Your task to perform on an android device: uninstall "VLC for Android" Image 0: 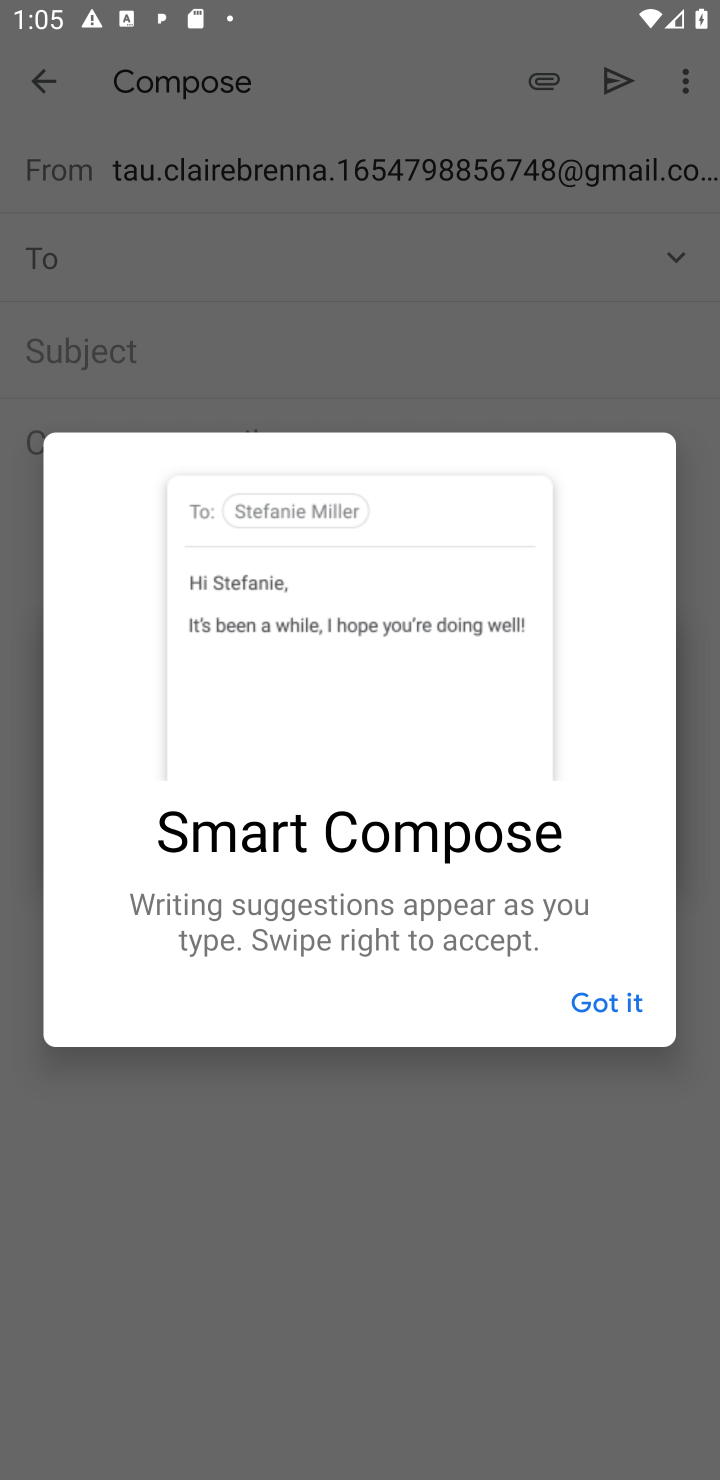
Step 0: press home button
Your task to perform on an android device: uninstall "VLC for Android" Image 1: 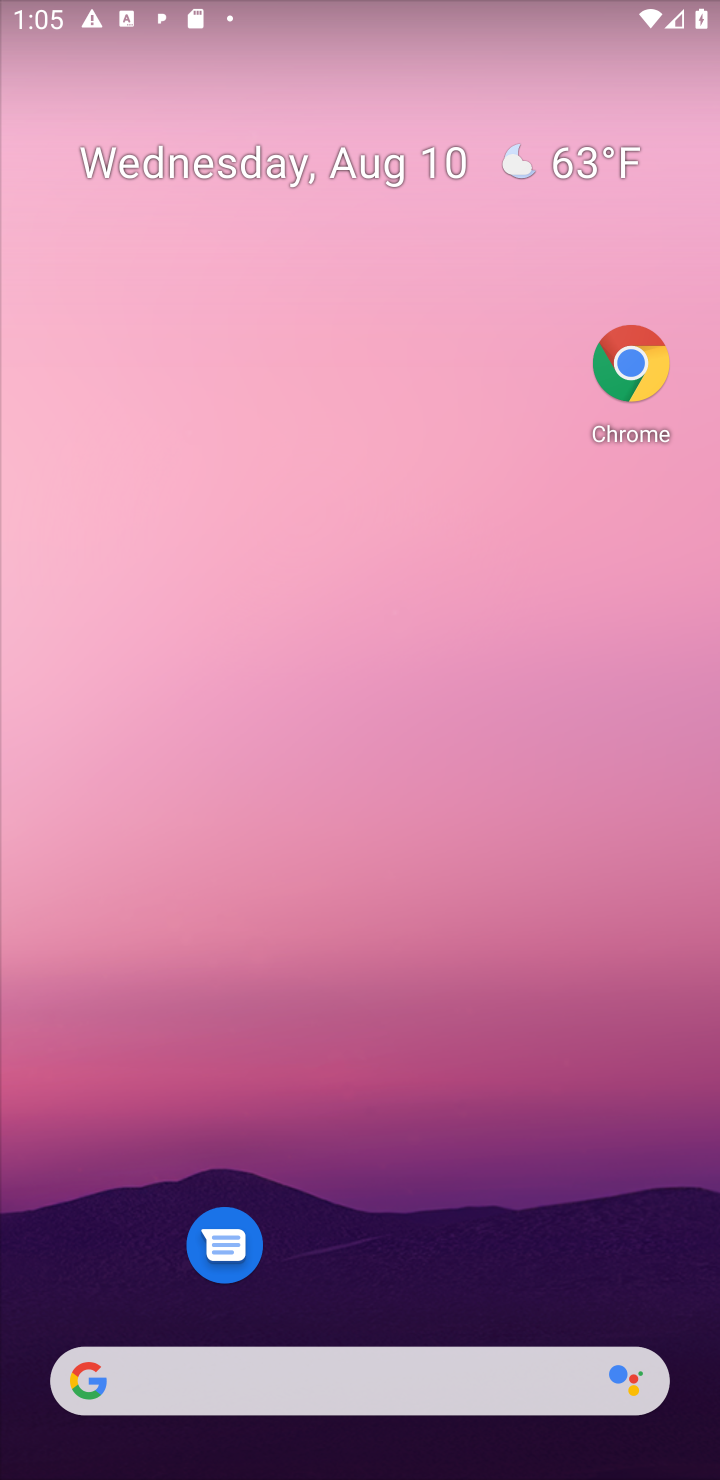
Step 1: drag from (287, 1087) to (209, 380)
Your task to perform on an android device: uninstall "VLC for Android" Image 2: 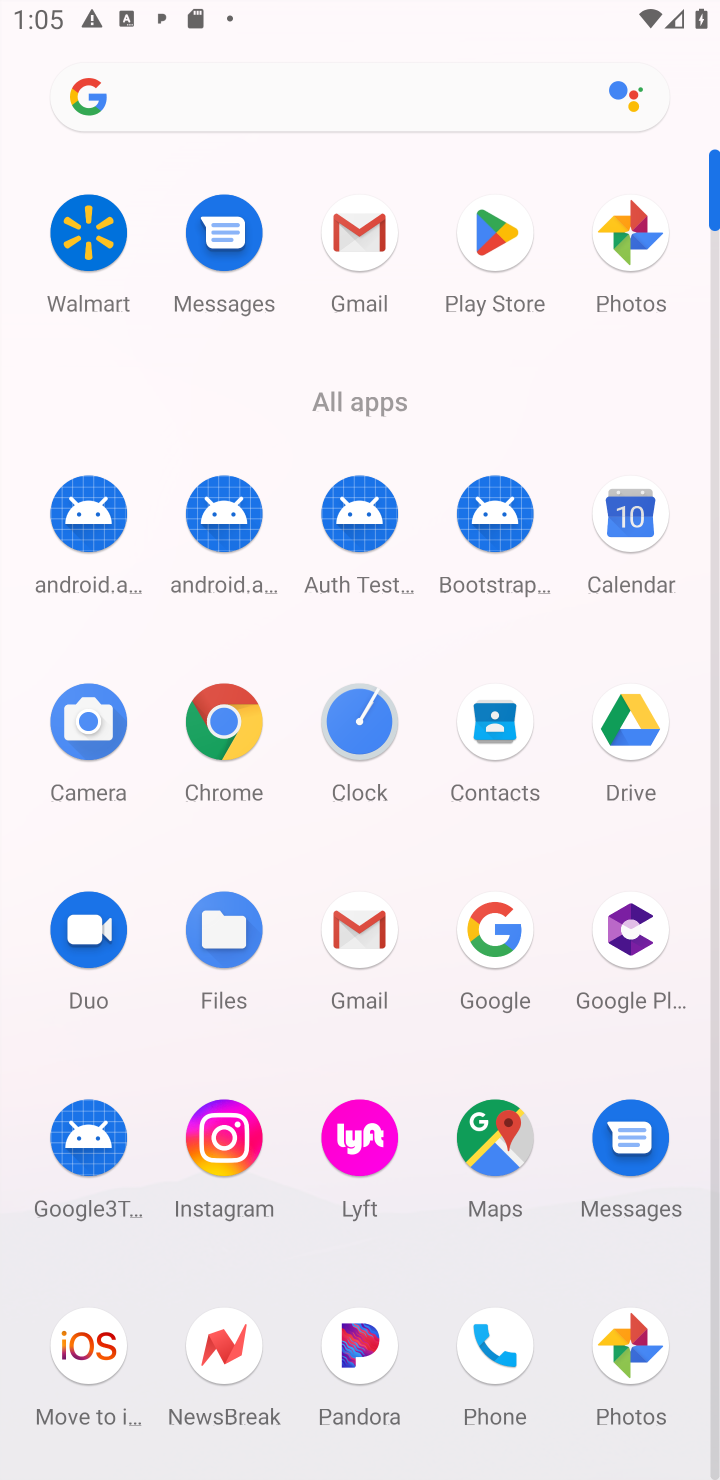
Step 2: click (488, 249)
Your task to perform on an android device: uninstall "VLC for Android" Image 3: 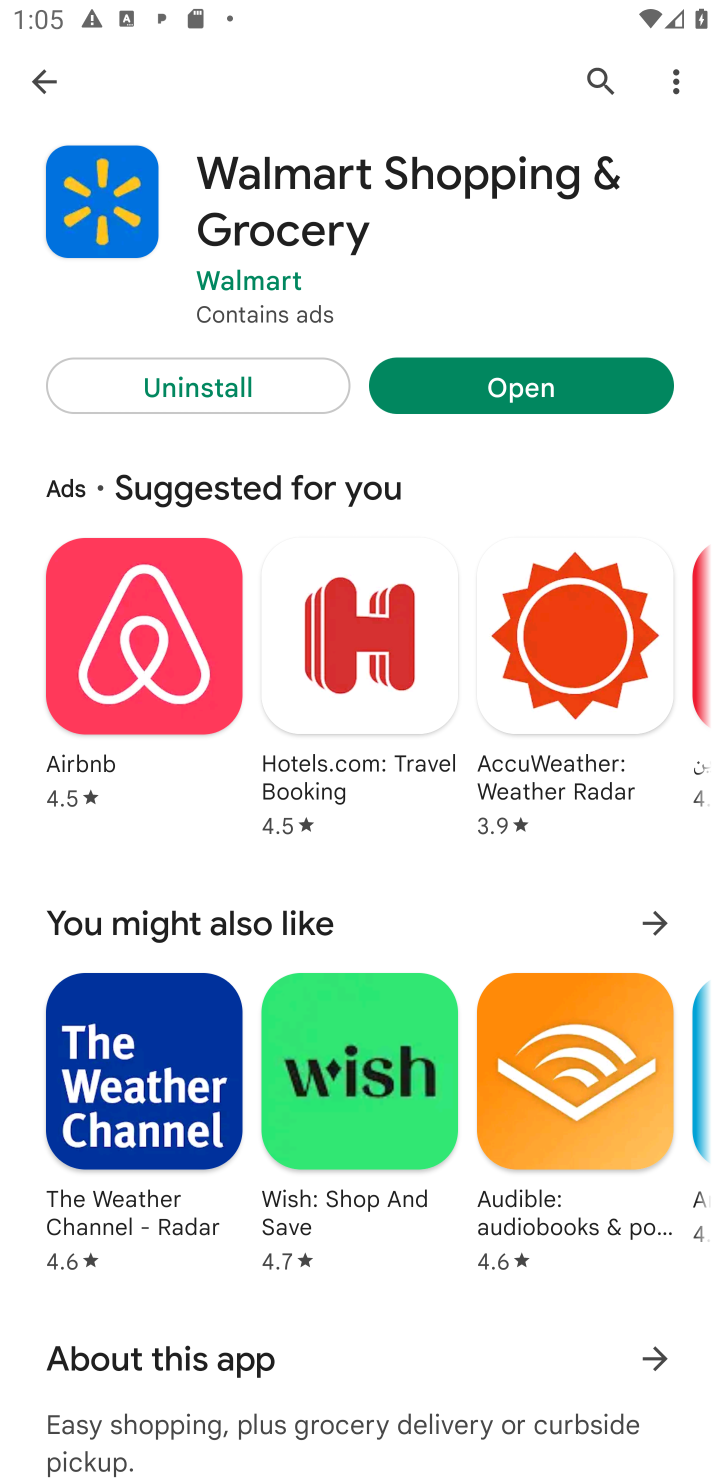
Step 3: click (602, 75)
Your task to perform on an android device: uninstall "VLC for Android" Image 4: 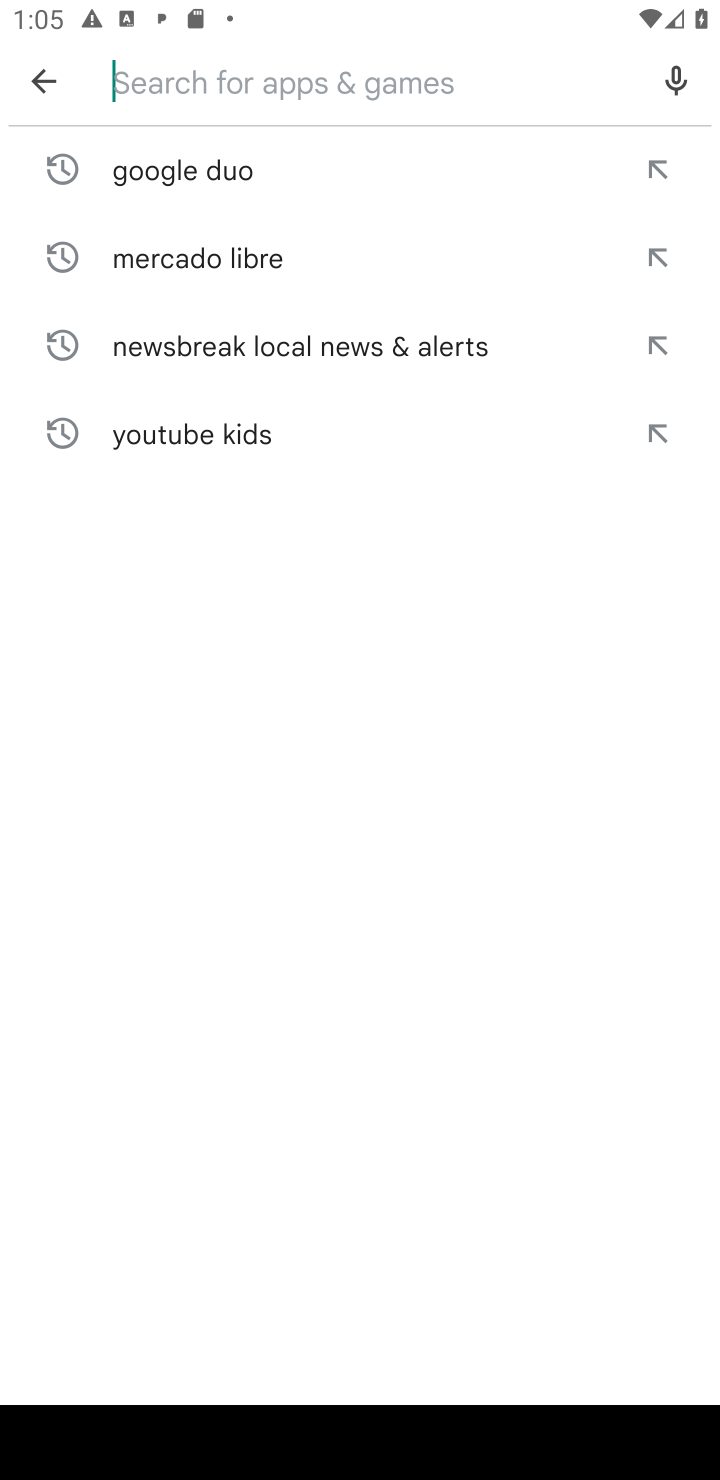
Step 4: type "VLC for Android"
Your task to perform on an android device: uninstall "VLC for Android" Image 5: 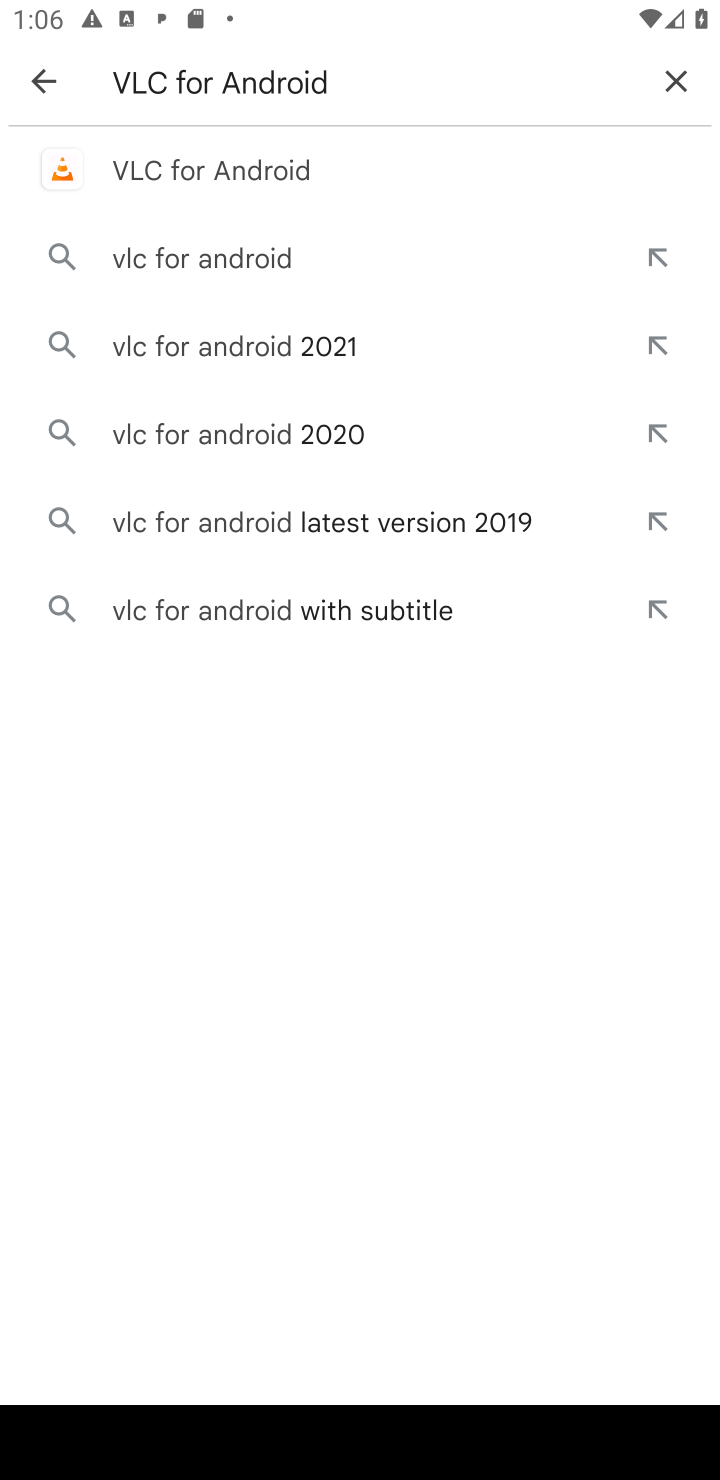
Step 5: click (192, 145)
Your task to perform on an android device: uninstall "VLC for Android" Image 6: 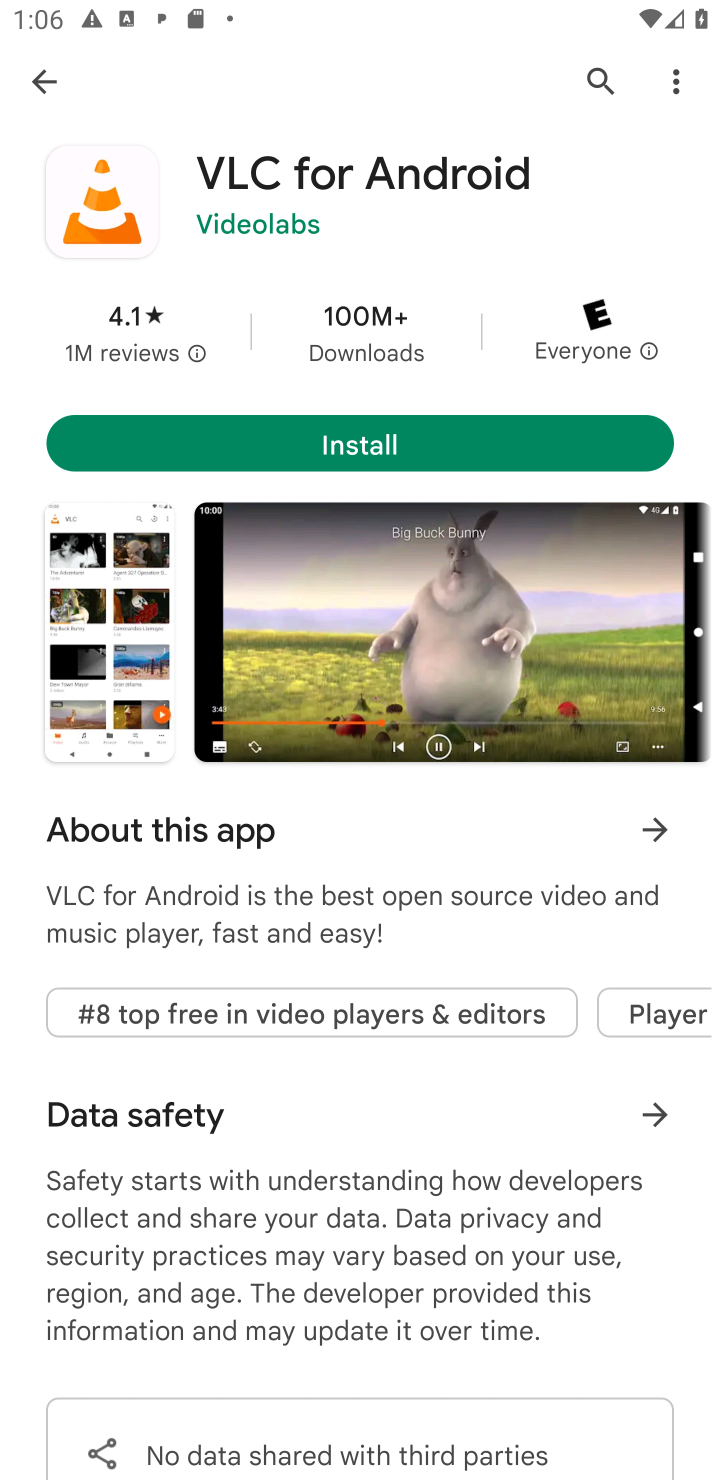
Step 6: task complete